Your task to perform on an android device: Is it going to rain this weekend? Image 0: 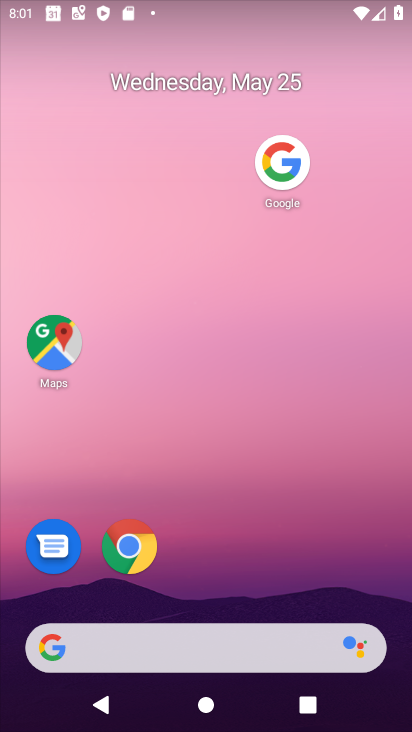
Step 0: click (334, 137)
Your task to perform on an android device: Is it going to rain this weekend? Image 1: 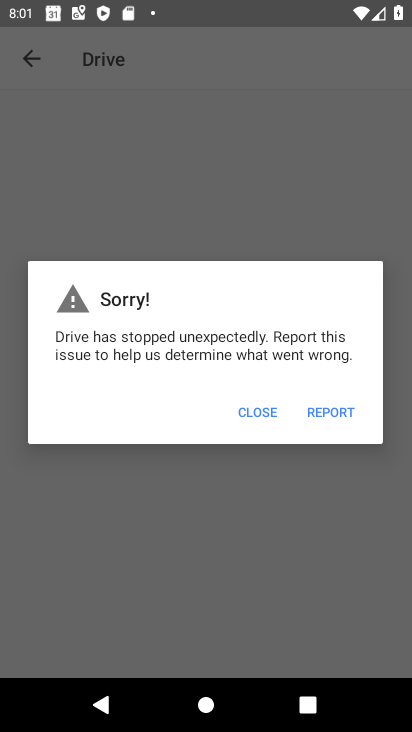
Step 1: press home button
Your task to perform on an android device: Is it going to rain this weekend? Image 2: 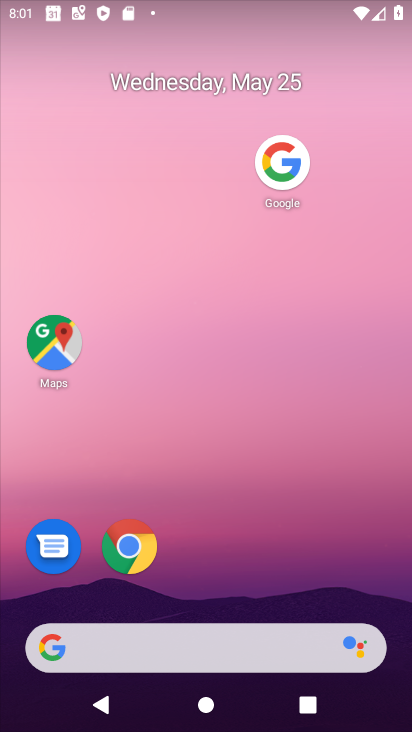
Step 2: click (58, 656)
Your task to perform on an android device: Is it going to rain this weekend? Image 3: 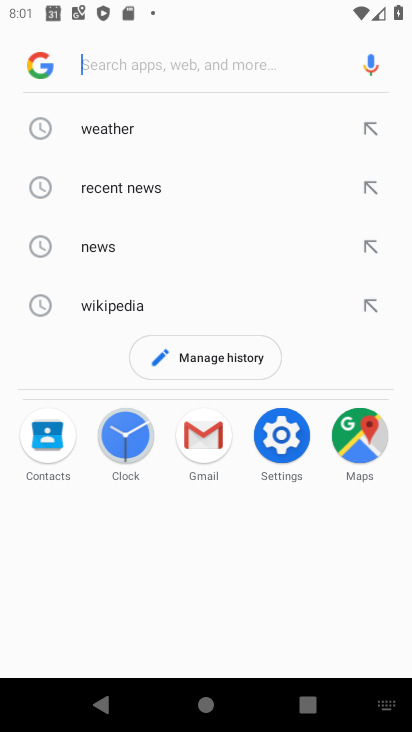
Step 3: click (108, 123)
Your task to perform on an android device: Is it going to rain this weekend? Image 4: 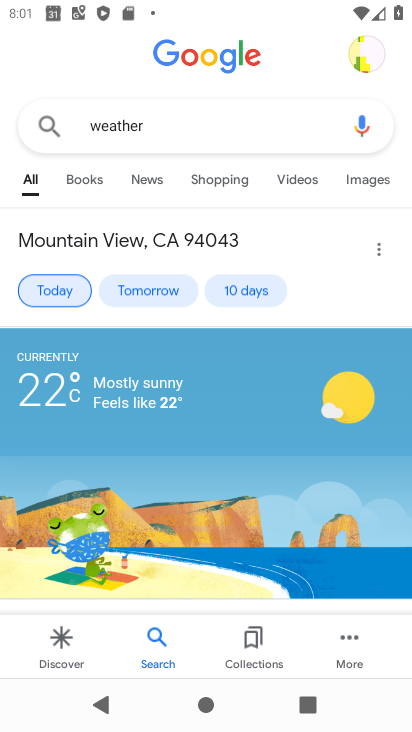
Step 4: click (266, 297)
Your task to perform on an android device: Is it going to rain this weekend? Image 5: 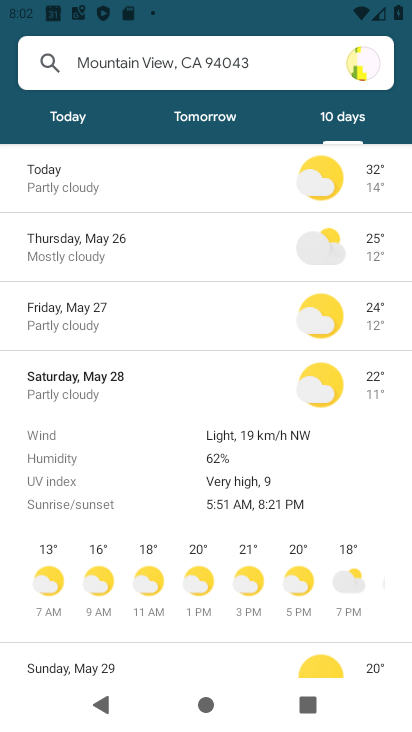
Step 5: task complete